Your task to perform on an android device: manage bookmarks in the chrome app Image 0: 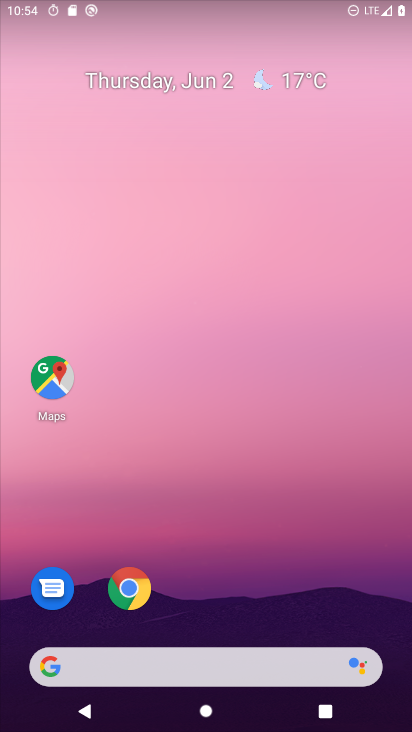
Step 0: click (258, 342)
Your task to perform on an android device: manage bookmarks in the chrome app Image 1: 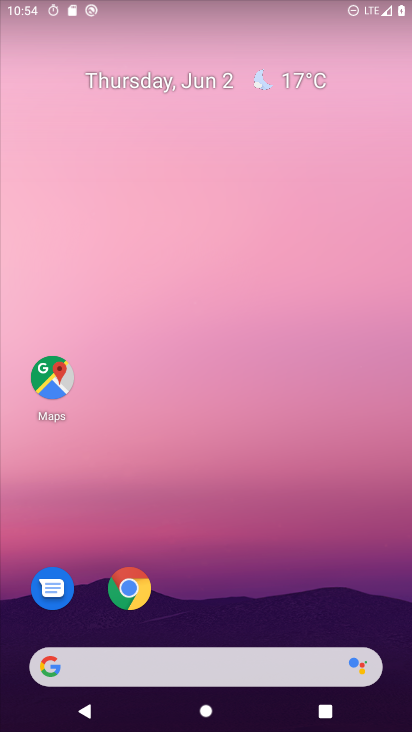
Step 1: drag from (273, 632) to (341, 140)
Your task to perform on an android device: manage bookmarks in the chrome app Image 2: 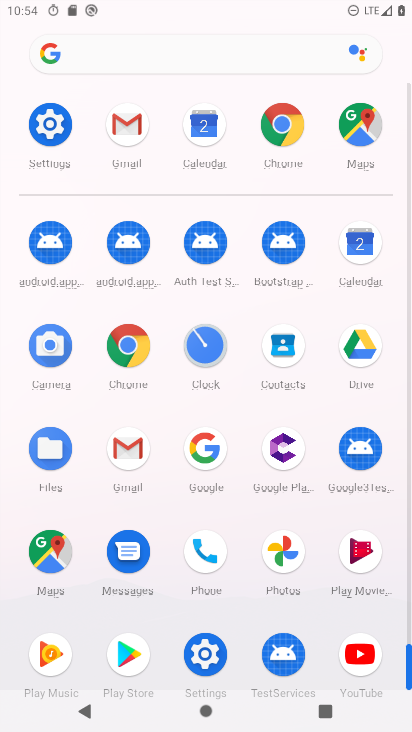
Step 2: click (290, 133)
Your task to perform on an android device: manage bookmarks in the chrome app Image 3: 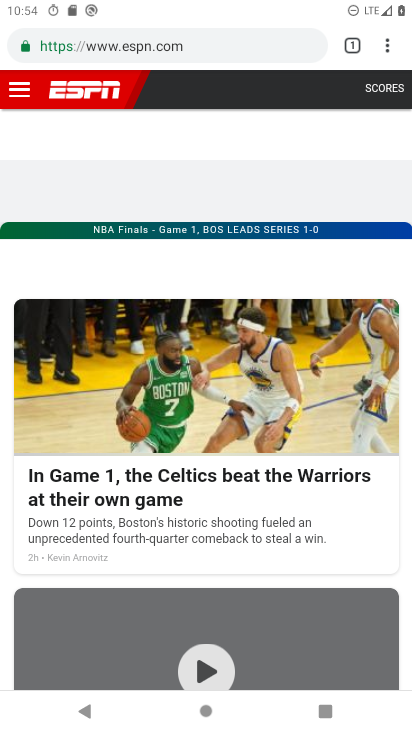
Step 3: click (393, 57)
Your task to perform on an android device: manage bookmarks in the chrome app Image 4: 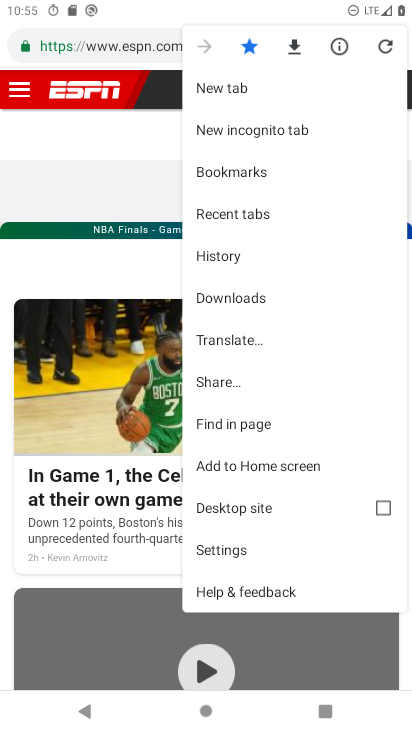
Step 4: click (283, 167)
Your task to perform on an android device: manage bookmarks in the chrome app Image 5: 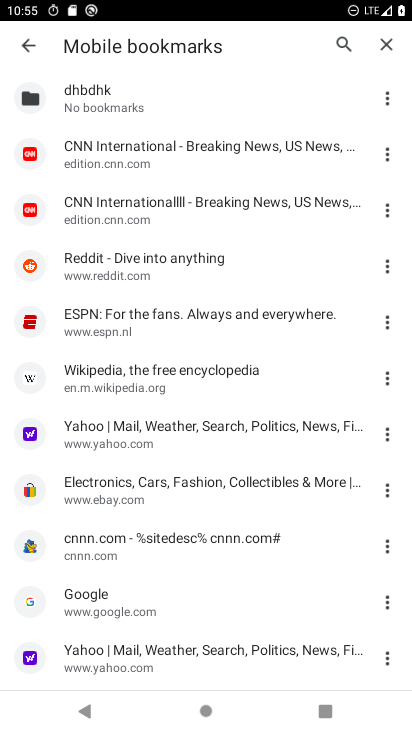
Step 5: task complete